Your task to perform on an android device: turn off notifications settings in the gmail app Image 0: 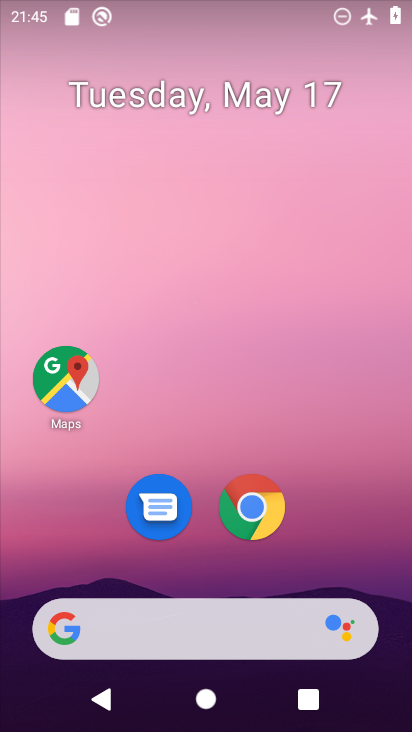
Step 0: drag from (374, 526) to (408, 321)
Your task to perform on an android device: turn off notifications settings in the gmail app Image 1: 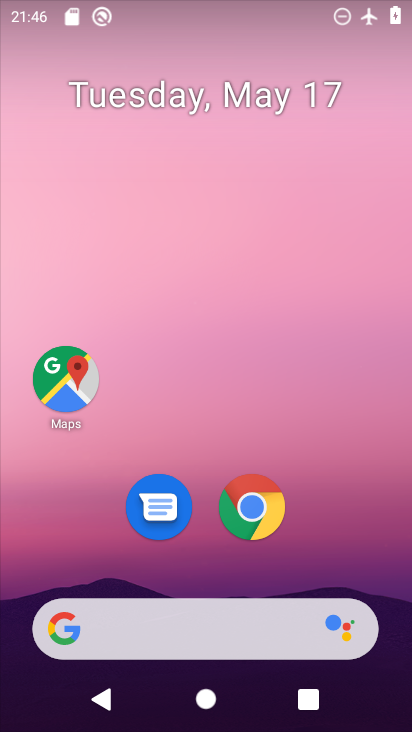
Step 1: click (255, 211)
Your task to perform on an android device: turn off notifications settings in the gmail app Image 2: 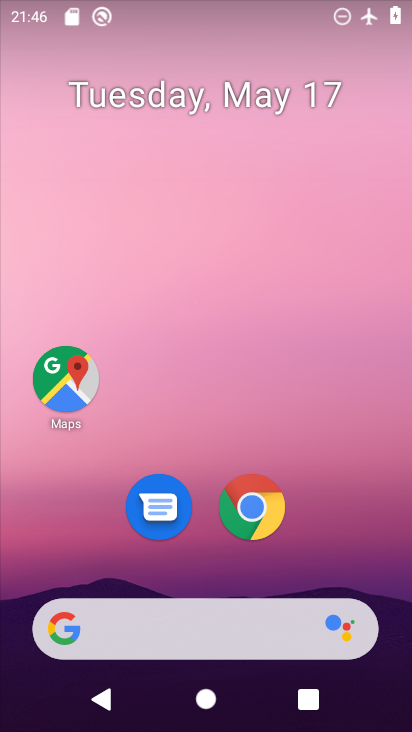
Step 2: drag from (361, 559) to (336, 11)
Your task to perform on an android device: turn off notifications settings in the gmail app Image 3: 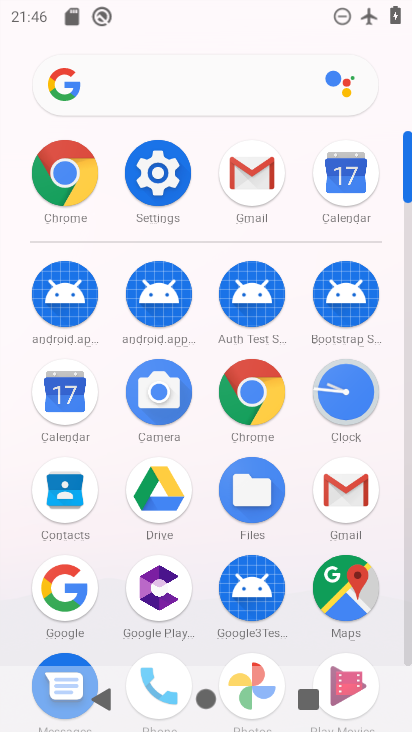
Step 3: click (251, 172)
Your task to perform on an android device: turn off notifications settings in the gmail app Image 4: 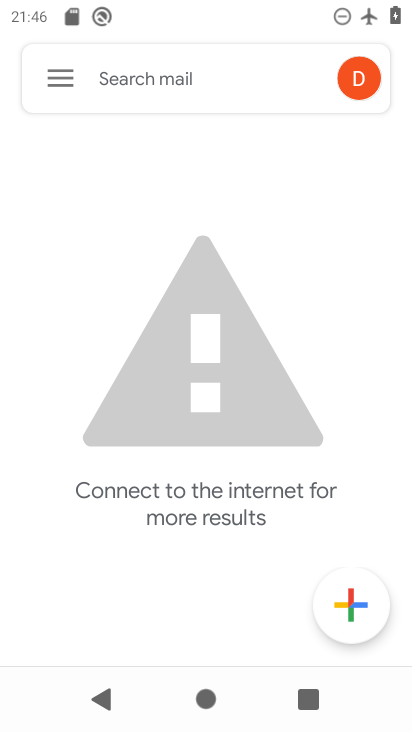
Step 4: click (53, 75)
Your task to perform on an android device: turn off notifications settings in the gmail app Image 5: 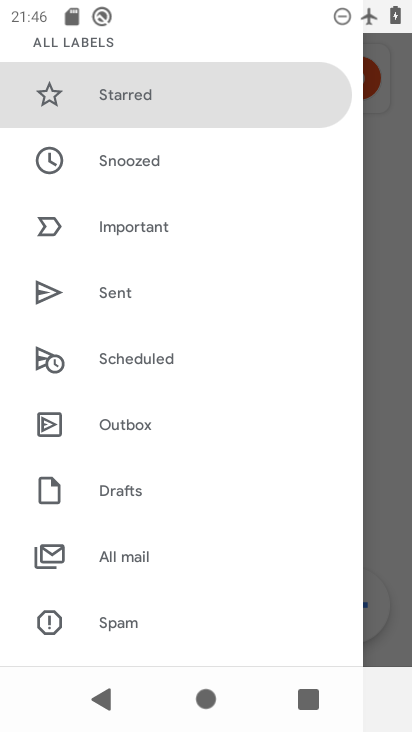
Step 5: drag from (193, 583) to (196, 109)
Your task to perform on an android device: turn off notifications settings in the gmail app Image 6: 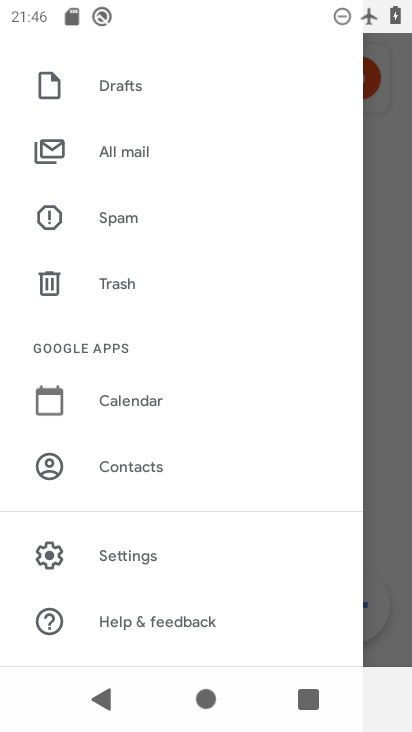
Step 6: click (124, 552)
Your task to perform on an android device: turn off notifications settings in the gmail app Image 7: 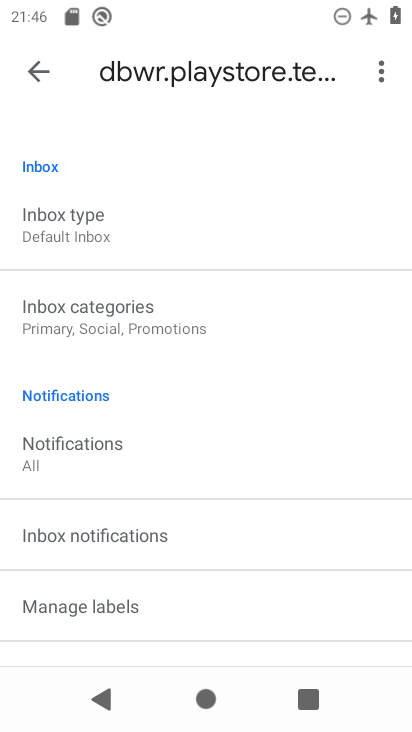
Step 7: click (50, 65)
Your task to perform on an android device: turn off notifications settings in the gmail app Image 8: 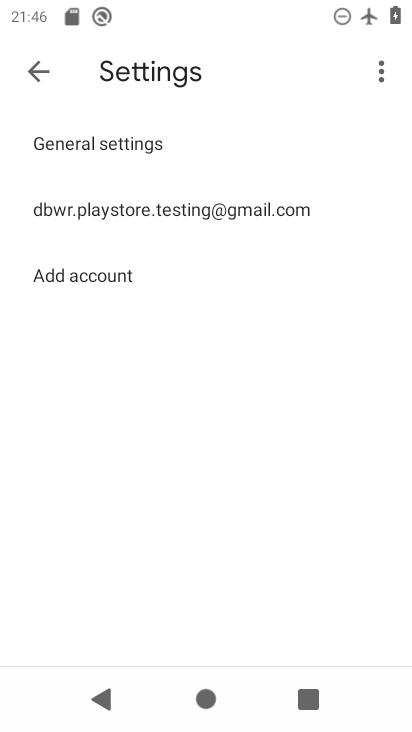
Step 8: click (61, 144)
Your task to perform on an android device: turn off notifications settings in the gmail app Image 9: 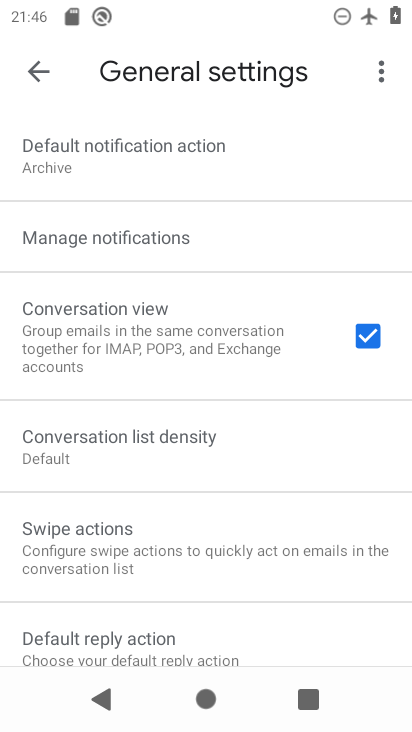
Step 9: click (81, 238)
Your task to perform on an android device: turn off notifications settings in the gmail app Image 10: 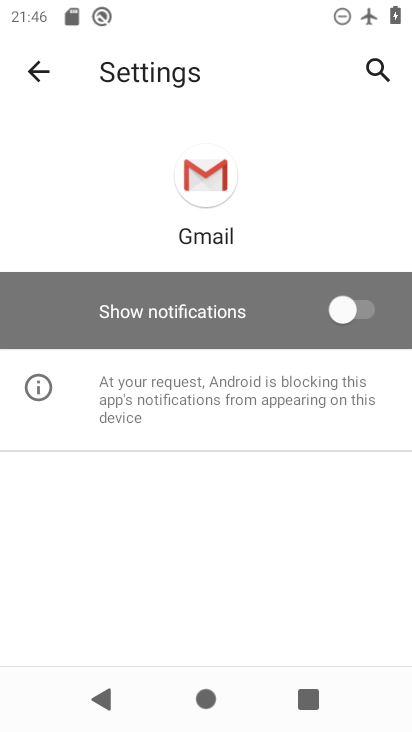
Step 10: task complete